Your task to perform on an android device: Open Google Maps Image 0: 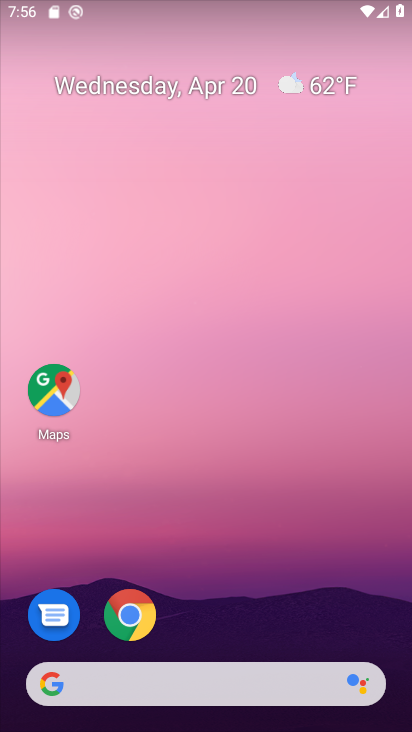
Step 0: click (56, 386)
Your task to perform on an android device: Open Google Maps Image 1: 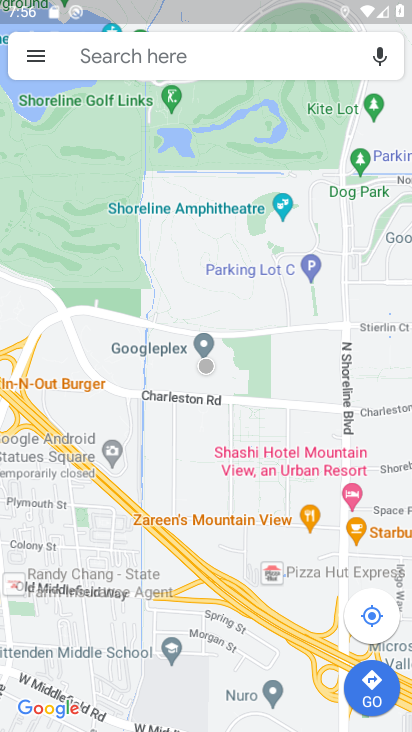
Step 1: click (58, 416)
Your task to perform on an android device: Open Google Maps Image 2: 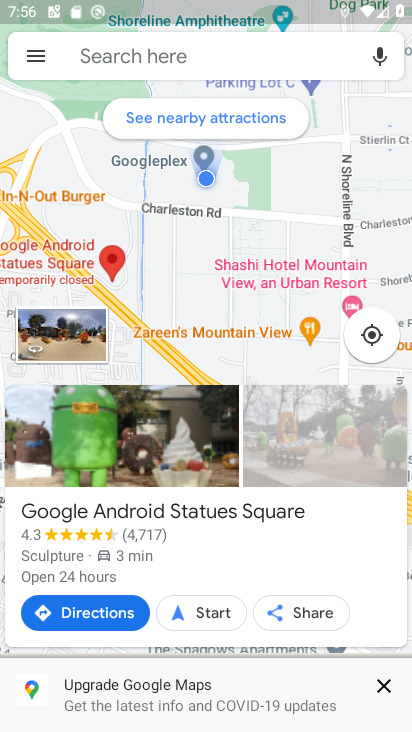
Step 2: click (388, 695)
Your task to perform on an android device: Open Google Maps Image 3: 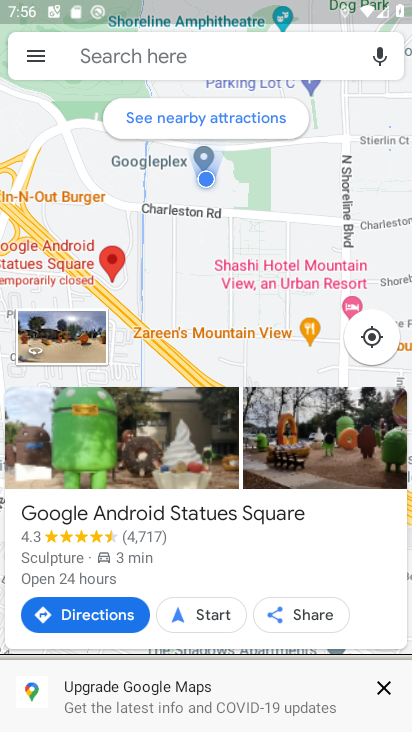
Step 3: task complete